Your task to perform on an android device: turn on priority inbox in the gmail app Image 0: 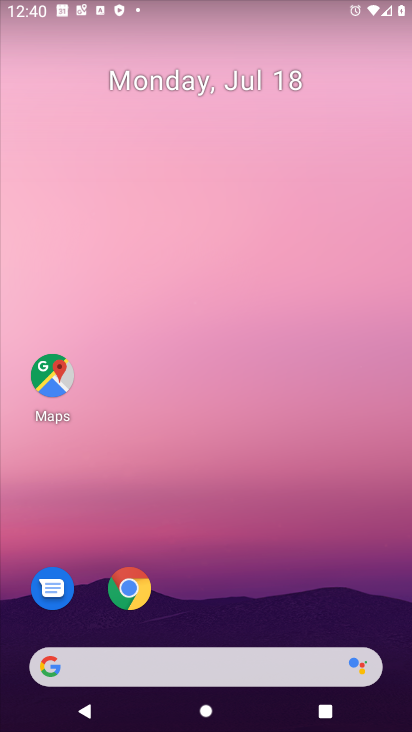
Step 0: drag from (262, 489) to (303, 100)
Your task to perform on an android device: turn on priority inbox in the gmail app Image 1: 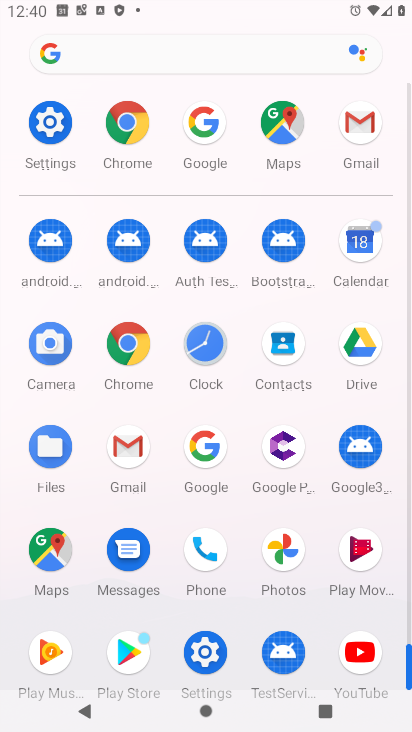
Step 1: click (124, 466)
Your task to perform on an android device: turn on priority inbox in the gmail app Image 2: 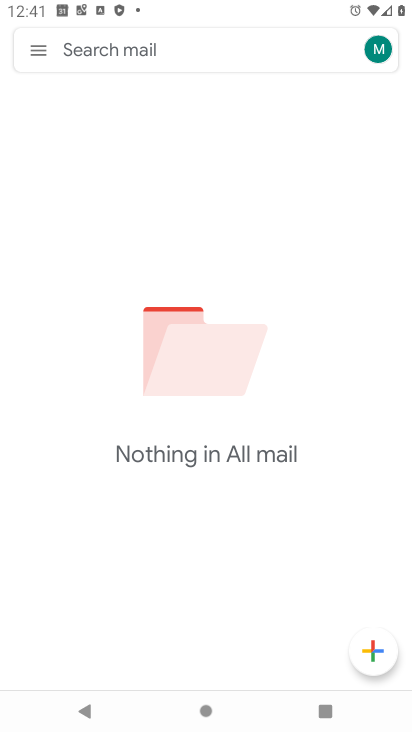
Step 2: click (30, 50)
Your task to perform on an android device: turn on priority inbox in the gmail app Image 3: 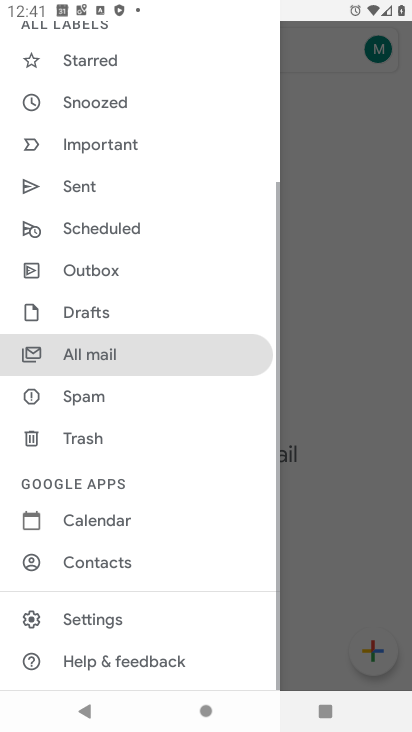
Step 3: drag from (132, 646) to (156, 528)
Your task to perform on an android device: turn on priority inbox in the gmail app Image 4: 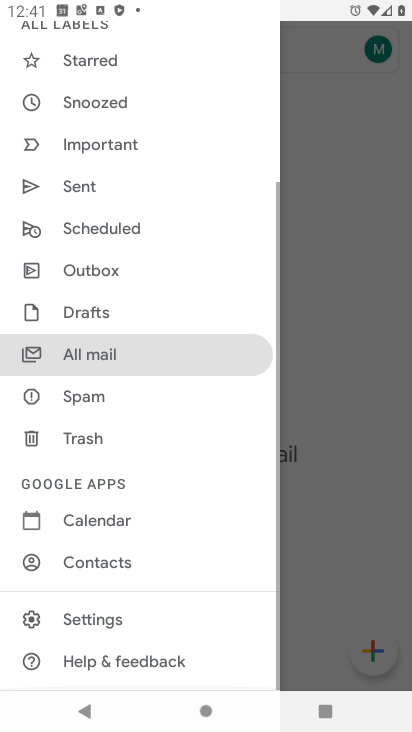
Step 4: click (101, 625)
Your task to perform on an android device: turn on priority inbox in the gmail app Image 5: 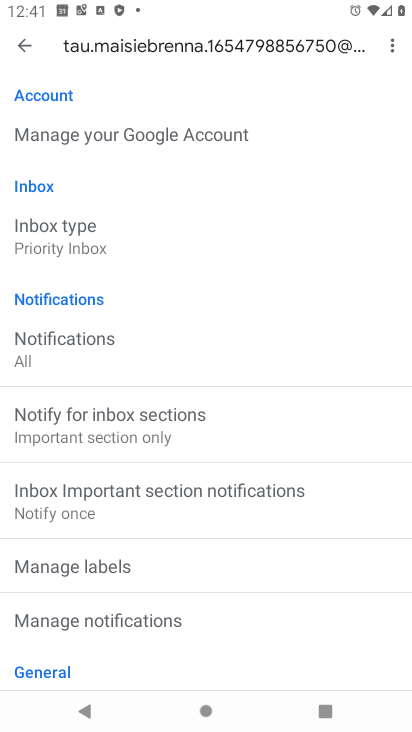
Step 5: click (101, 238)
Your task to perform on an android device: turn on priority inbox in the gmail app Image 6: 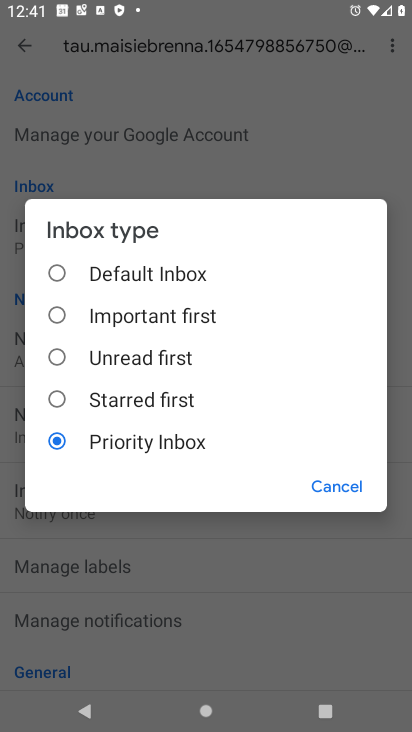
Step 6: task complete